Your task to perform on an android device: Go to calendar. Show me events next week Image 0: 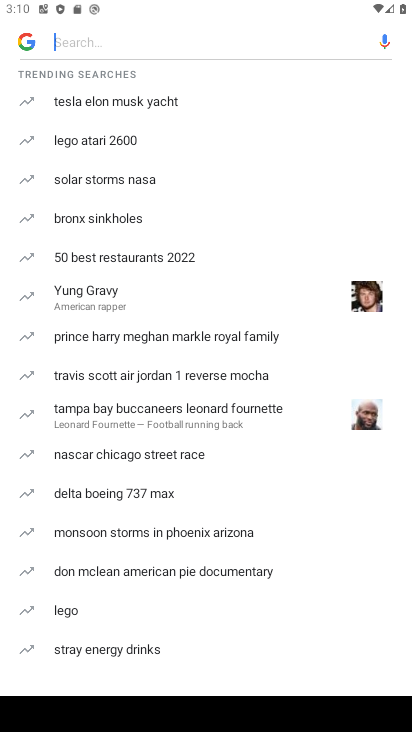
Step 0: press back button
Your task to perform on an android device: Go to calendar. Show me events next week Image 1: 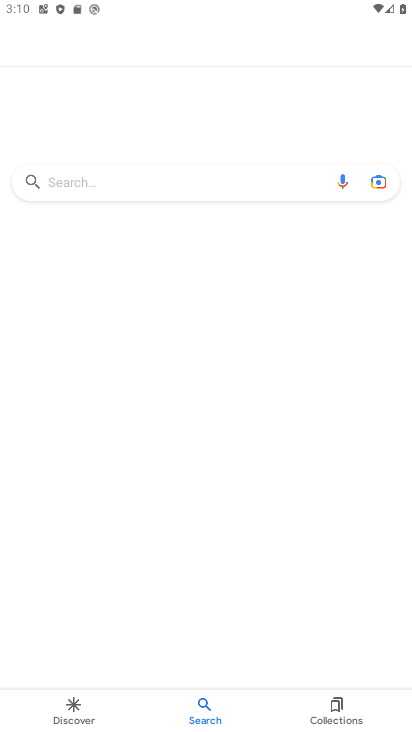
Step 1: press back button
Your task to perform on an android device: Go to calendar. Show me events next week Image 2: 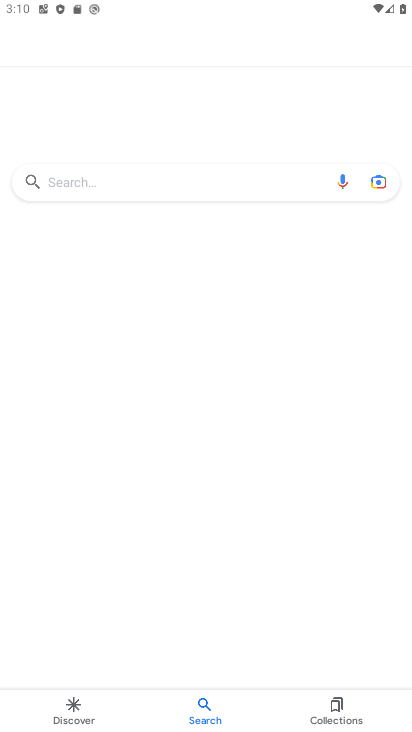
Step 2: press back button
Your task to perform on an android device: Go to calendar. Show me events next week Image 3: 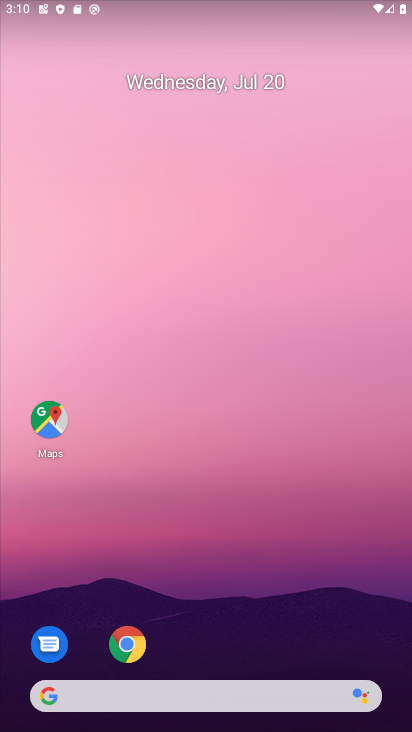
Step 3: drag from (333, 631) to (208, 23)
Your task to perform on an android device: Go to calendar. Show me events next week Image 4: 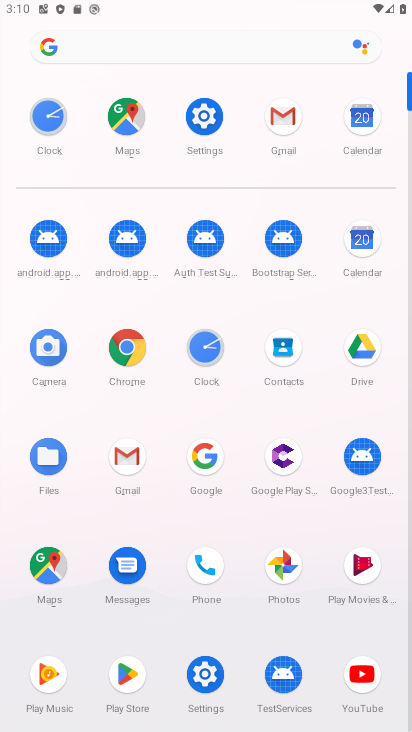
Step 4: click (350, 148)
Your task to perform on an android device: Go to calendar. Show me events next week Image 5: 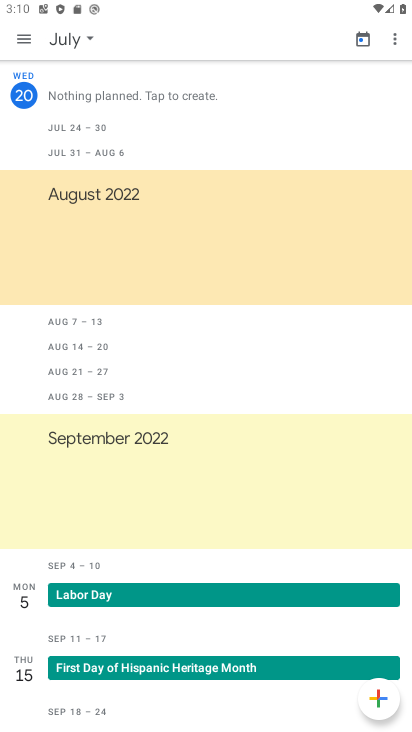
Step 5: task complete